Your task to perform on an android device: turn on improve location accuracy Image 0: 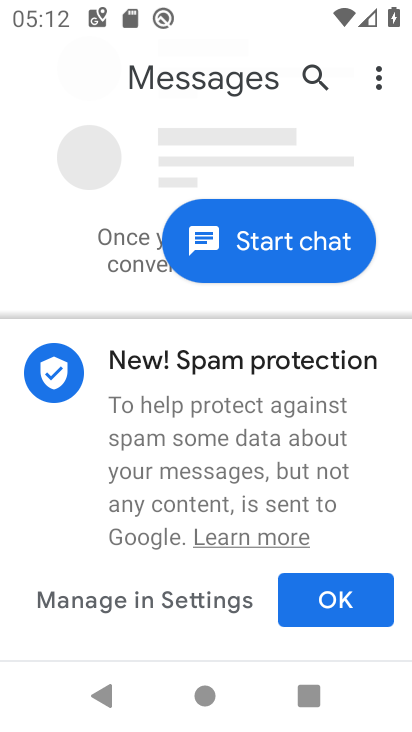
Step 0: press home button
Your task to perform on an android device: turn on improve location accuracy Image 1: 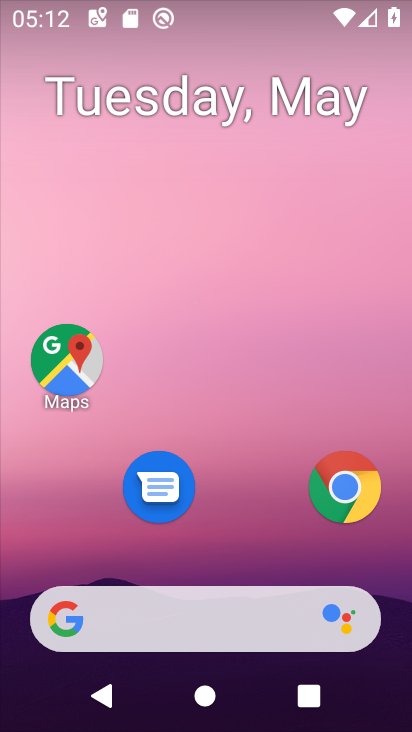
Step 1: drag from (242, 572) to (230, 70)
Your task to perform on an android device: turn on improve location accuracy Image 2: 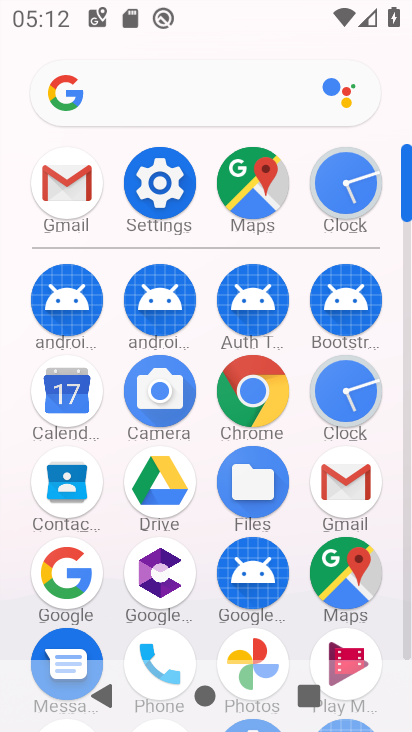
Step 2: click (173, 172)
Your task to perform on an android device: turn on improve location accuracy Image 3: 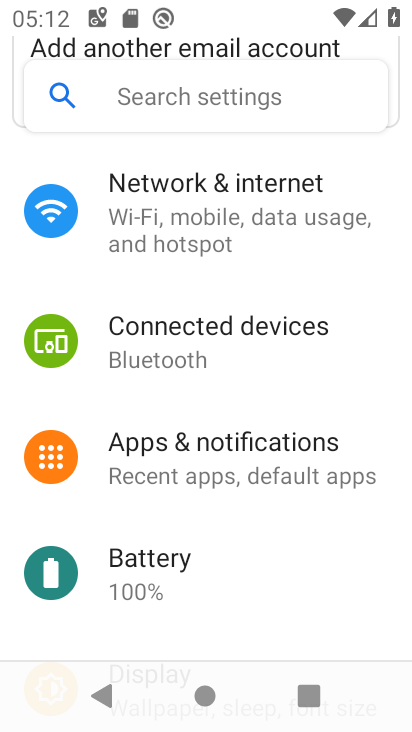
Step 3: drag from (187, 575) to (280, 137)
Your task to perform on an android device: turn on improve location accuracy Image 4: 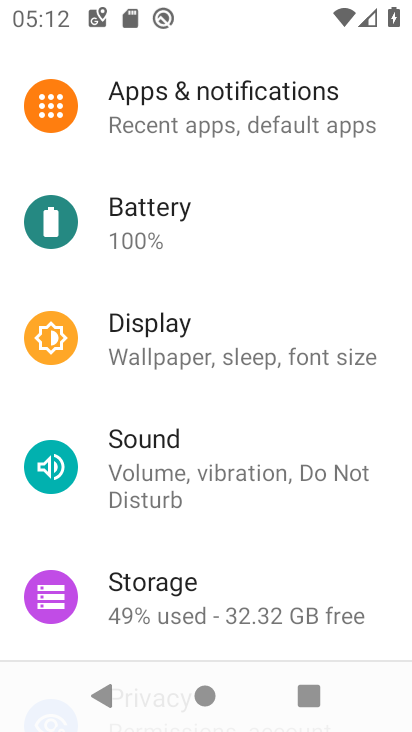
Step 4: drag from (267, 574) to (332, 167)
Your task to perform on an android device: turn on improve location accuracy Image 5: 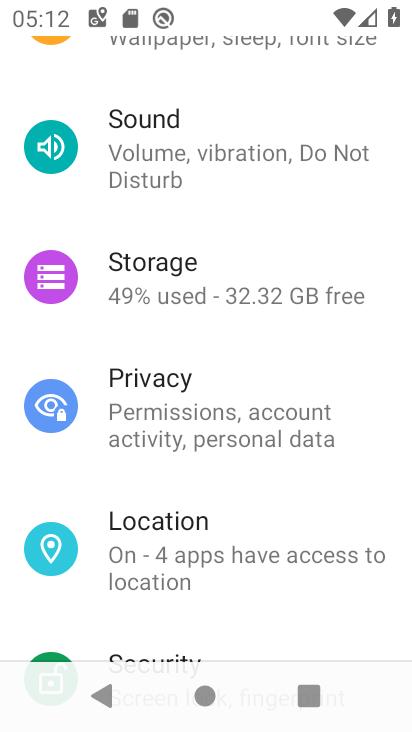
Step 5: click (255, 543)
Your task to perform on an android device: turn on improve location accuracy Image 6: 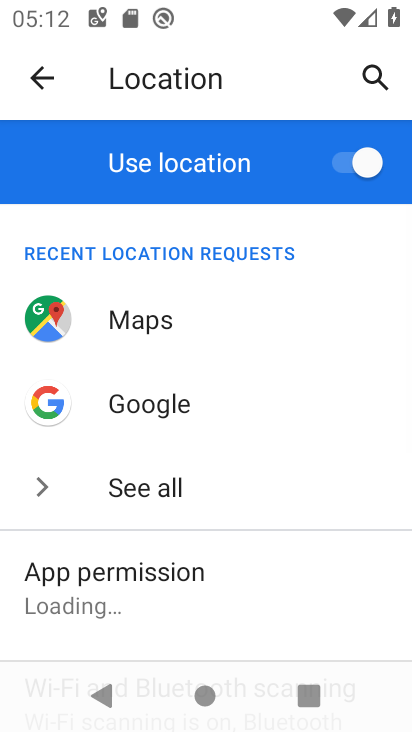
Step 6: drag from (211, 560) to (293, 142)
Your task to perform on an android device: turn on improve location accuracy Image 7: 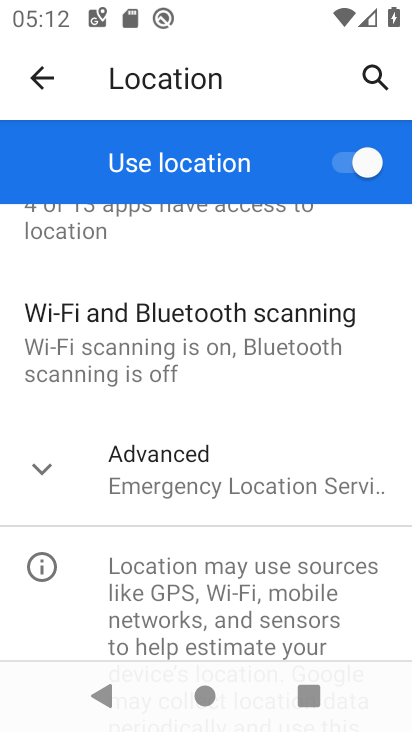
Step 7: click (189, 438)
Your task to perform on an android device: turn on improve location accuracy Image 8: 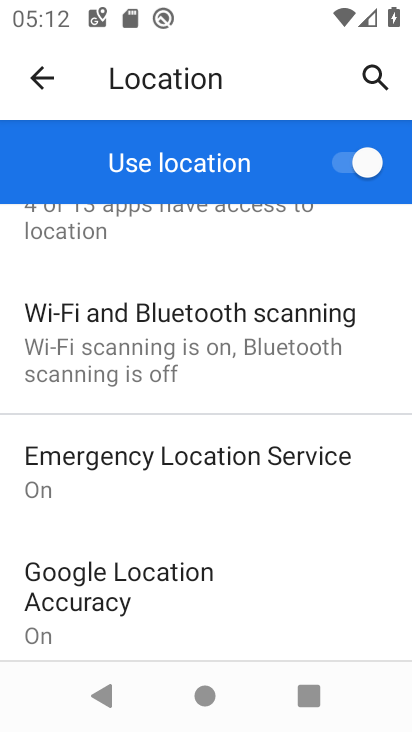
Step 8: click (223, 585)
Your task to perform on an android device: turn on improve location accuracy Image 9: 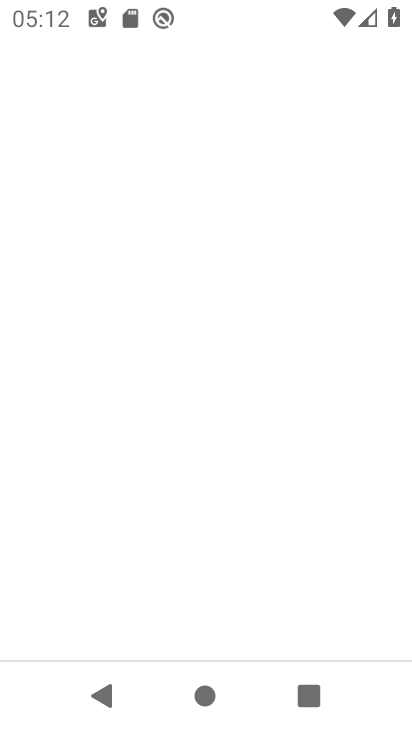
Step 9: task complete